Your task to perform on an android device: turn off improve location accuracy Image 0: 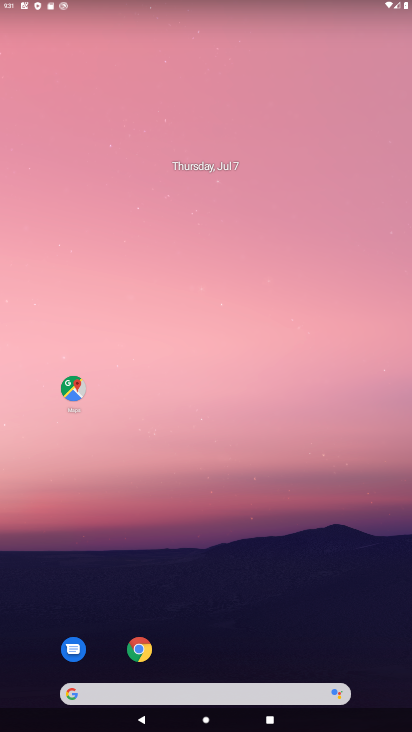
Step 0: drag from (224, 552) to (256, 223)
Your task to perform on an android device: turn off improve location accuracy Image 1: 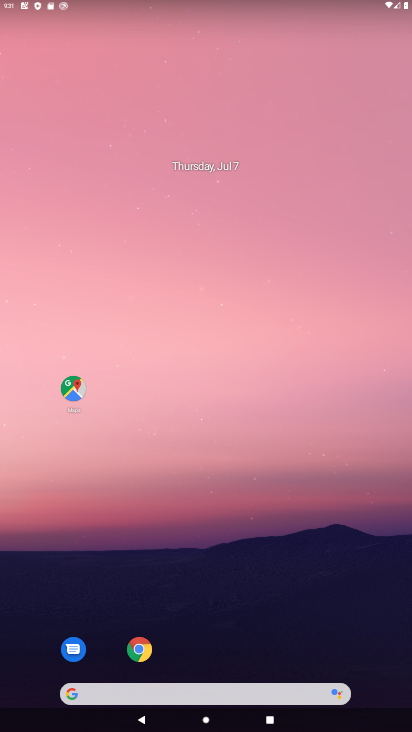
Step 1: drag from (219, 493) to (263, 192)
Your task to perform on an android device: turn off improve location accuracy Image 2: 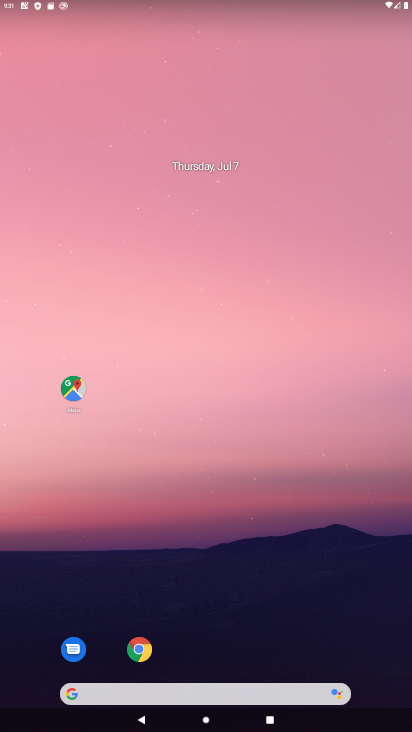
Step 2: drag from (266, 557) to (234, 12)
Your task to perform on an android device: turn off improve location accuracy Image 3: 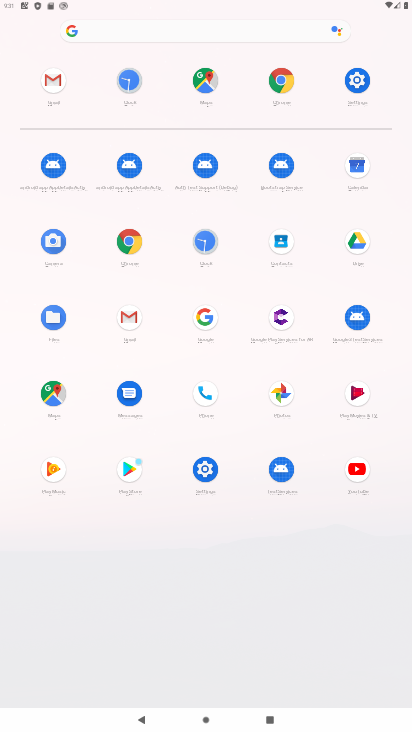
Step 3: click (207, 471)
Your task to perform on an android device: turn off improve location accuracy Image 4: 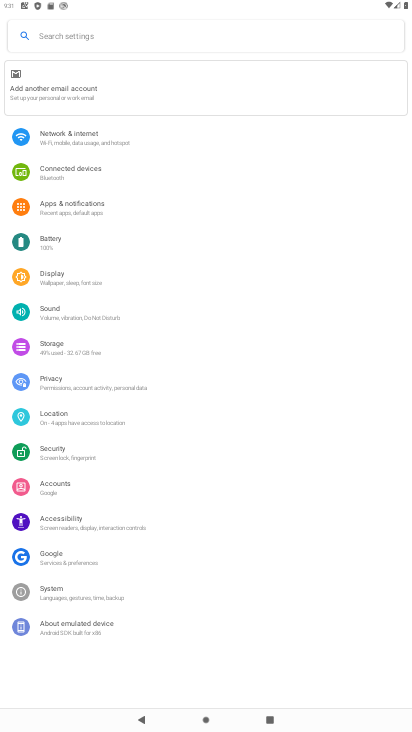
Step 4: click (53, 415)
Your task to perform on an android device: turn off improve location accuracy Image 5: 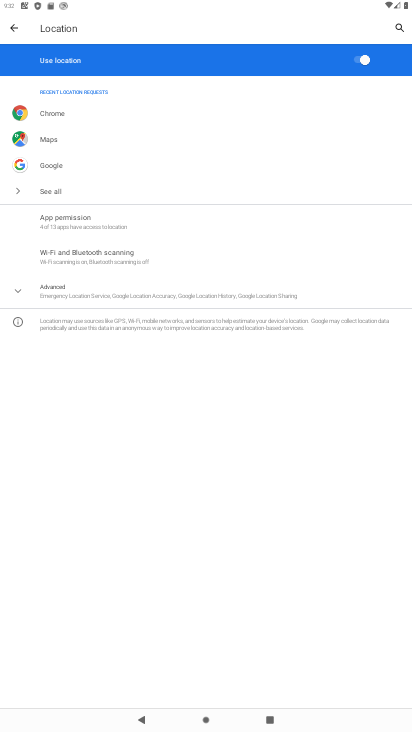
Step 5: click (86, 291)
Your task to perform on an android device: turn off improve location accuracy Image 6: 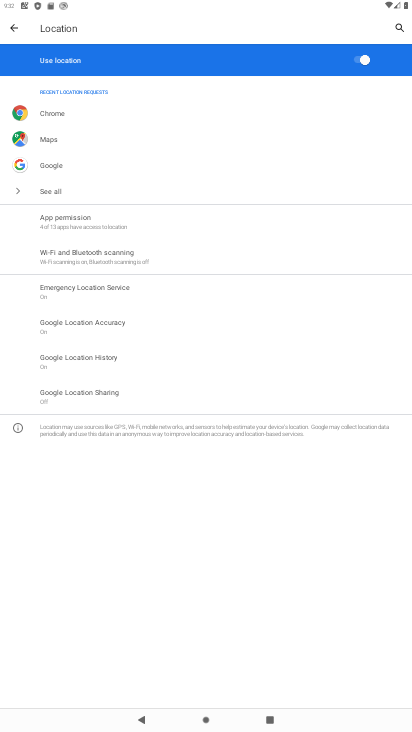
Step 6: task complete